Your task to perform on an android device: Check the weather Image 0: 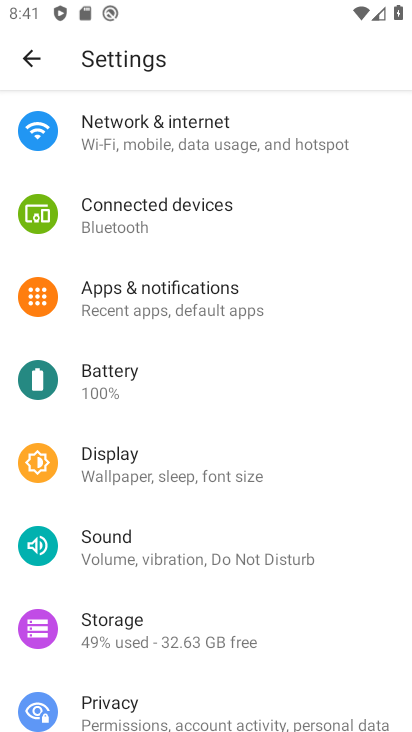
Step 0: press home button
Your task to perform on an android device: Check the weather Image 1: 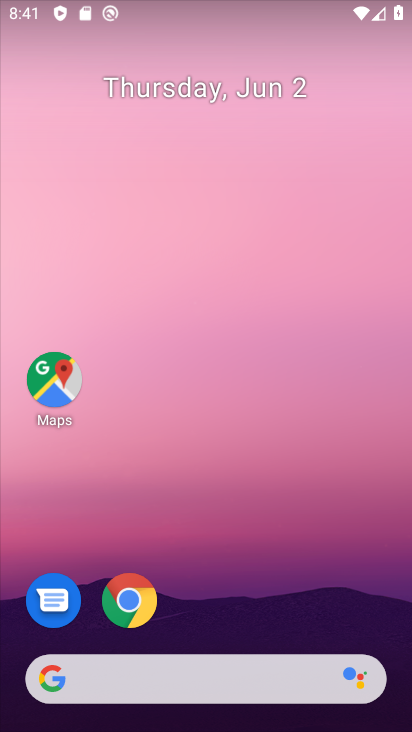
Step 1: click (184, 678)
Your task to perform on an android device: Check the weather Image 2: 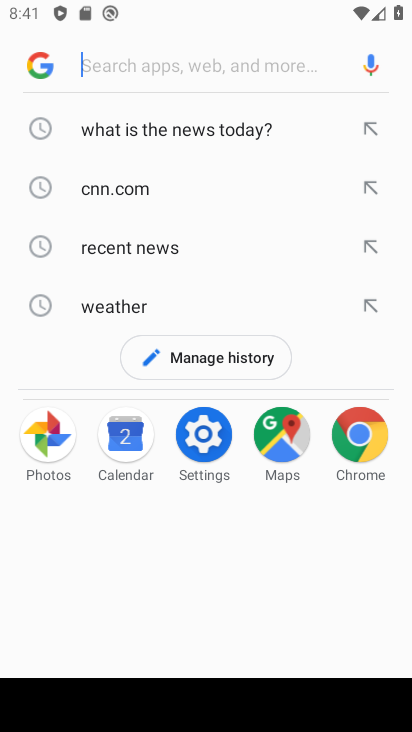
Step 2: type "weather"
Your task to perform on an android device: Check the weather Image 3: 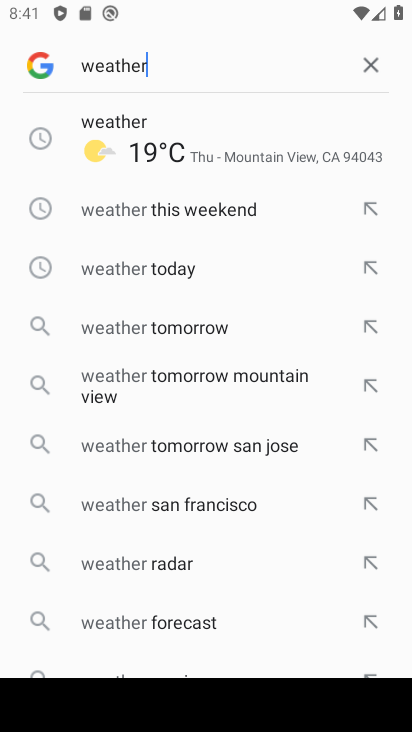
Step 3: click (223, 150)
Your task to perform on an android device: Check the weather Image 4: 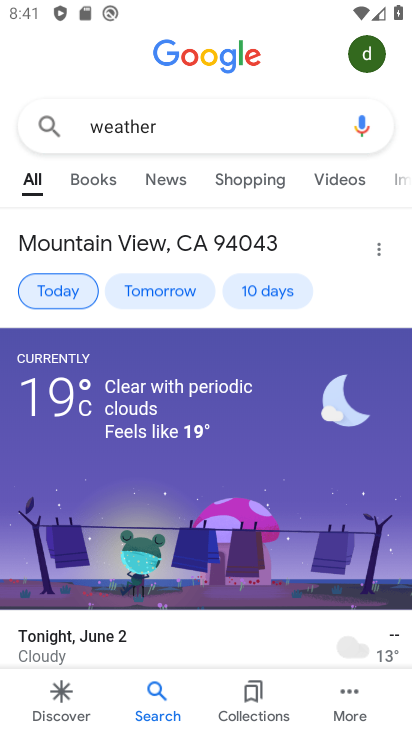
Step 4: task complete